Your task to perform on an android device: turn notification dots off Image 0: 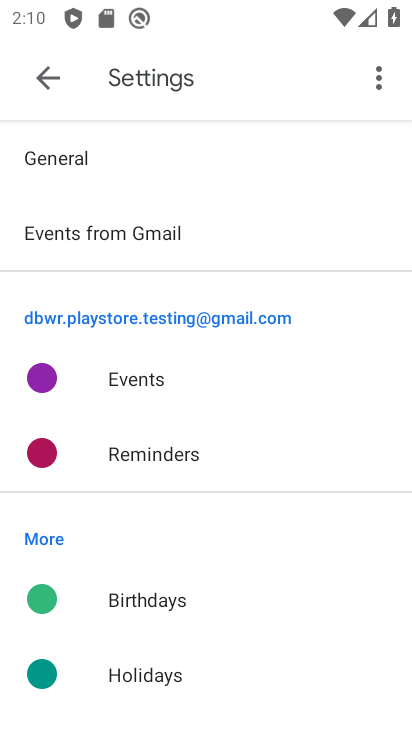
Step 0: press home button
Your task to perform on an android device: turn notification dots off Image 1: 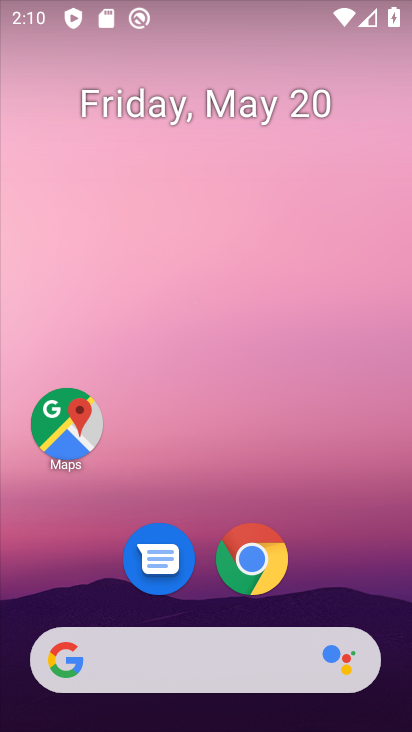
Step 1: drag from (223, 489) to (209, 135)
Your task to perform on an android device: turn notification dots off Image 2: 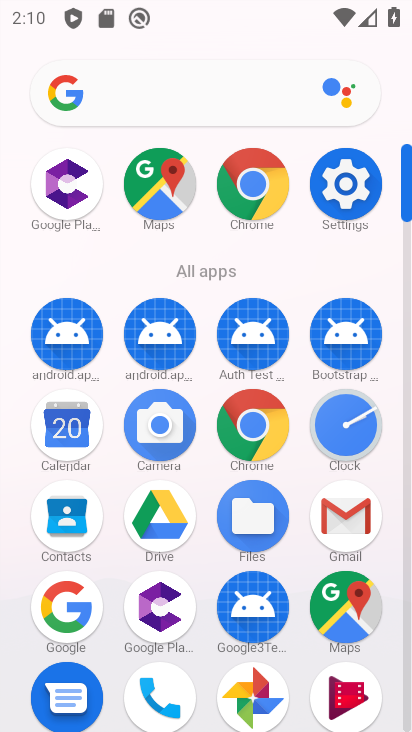
Step 2: click (326, 191)
Your task to perform on an android device: turn notification dots off Image 3: 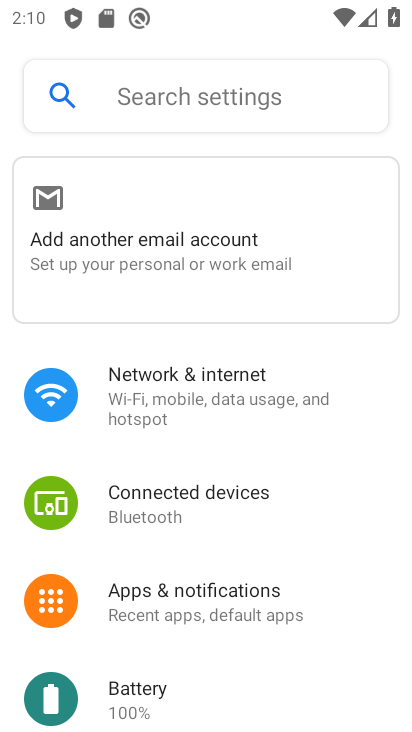
Step 3: click (208, 595)
Your task to perform on an android device: turn notification dots off Image 4: 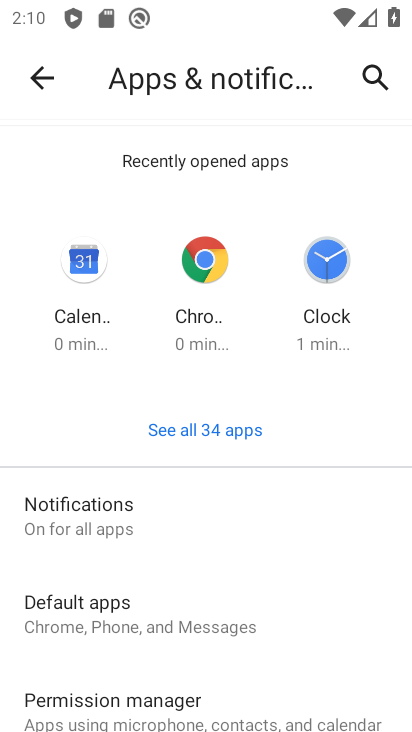
Step 4: drag from (240, 566) to (266, 299)
Your task to perform on an android device: turn notification dots off Image 5: 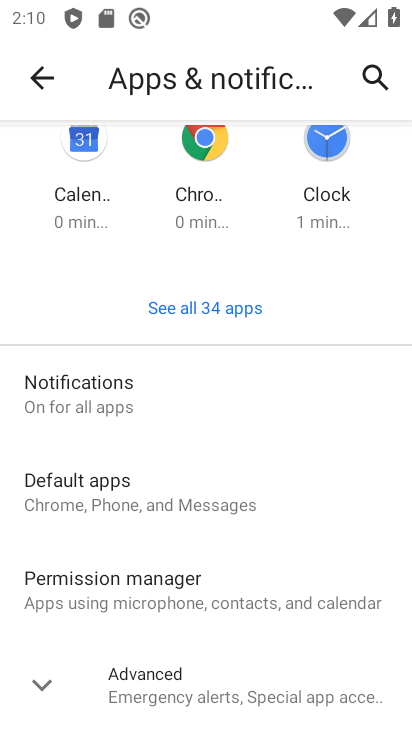
Step 5: click (212, 403)
Your task to perform on an android device: turn notification dots off Image 6: 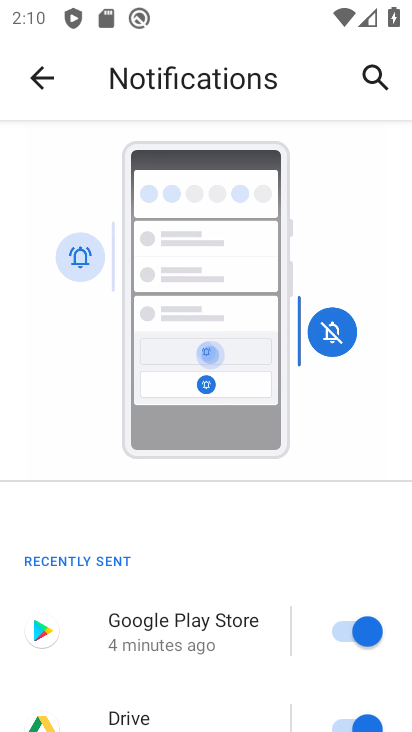
Step 6: drag from (217, 679) to (220, 303)
Your task to perform on an android device: turn notification dots off Image 7: 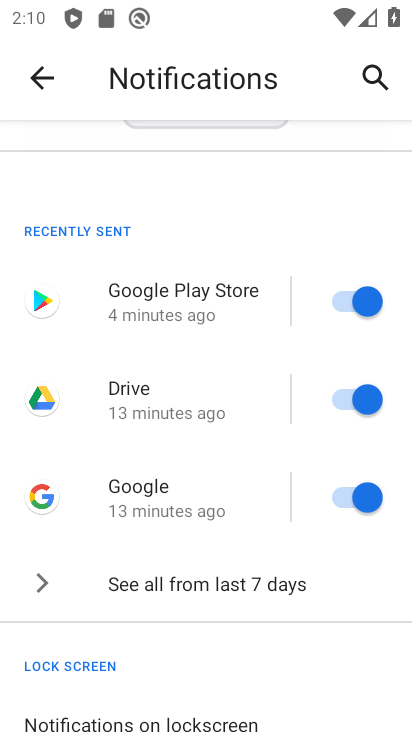
Step 7: drag from (211, 646) to (205, 398)
Your task to perform on an android device: turn notification dots off Image 8: 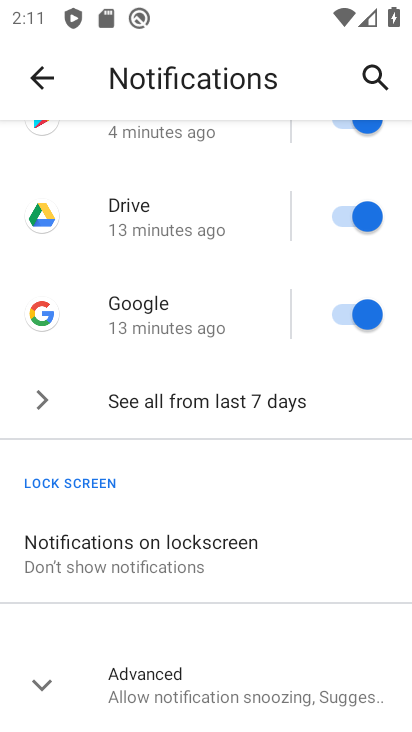
Step 8: click (50, 682)
Your task to perform on an android device: turn notification dots off Image 9: 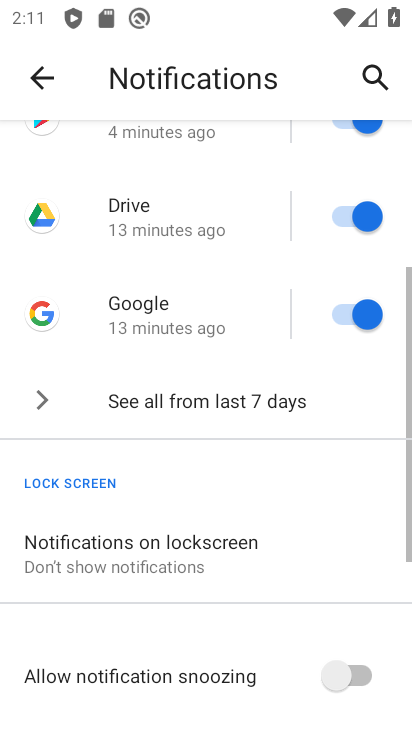
Step 9: drag from (227, 624) to (216, 239)
Your task to perform on an android device: turn notification dots off Image 10: 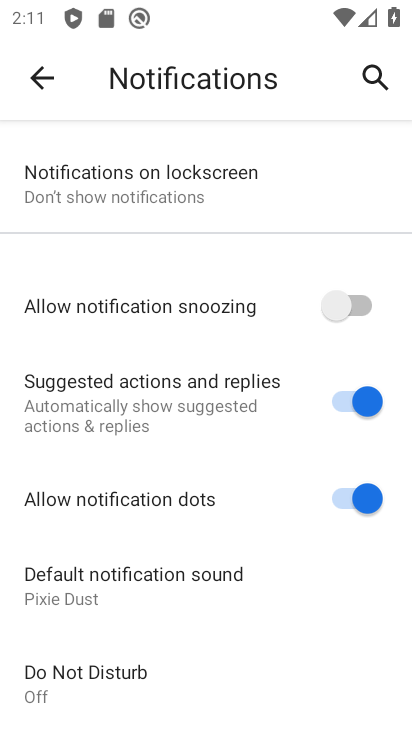
Step 10: click (345, 502)
Your task to perform on an android device: turn notification dots off Image 11: 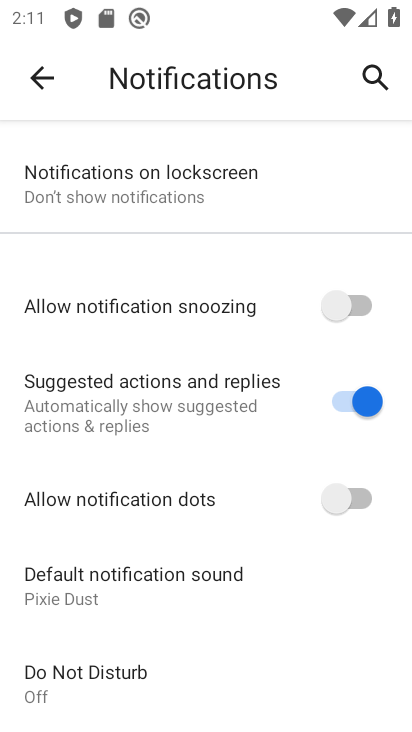
Step 11: task complete